Your task to perform on an android device: Add bose quietcomfort 35 to the cart on bestbuy Image 0: 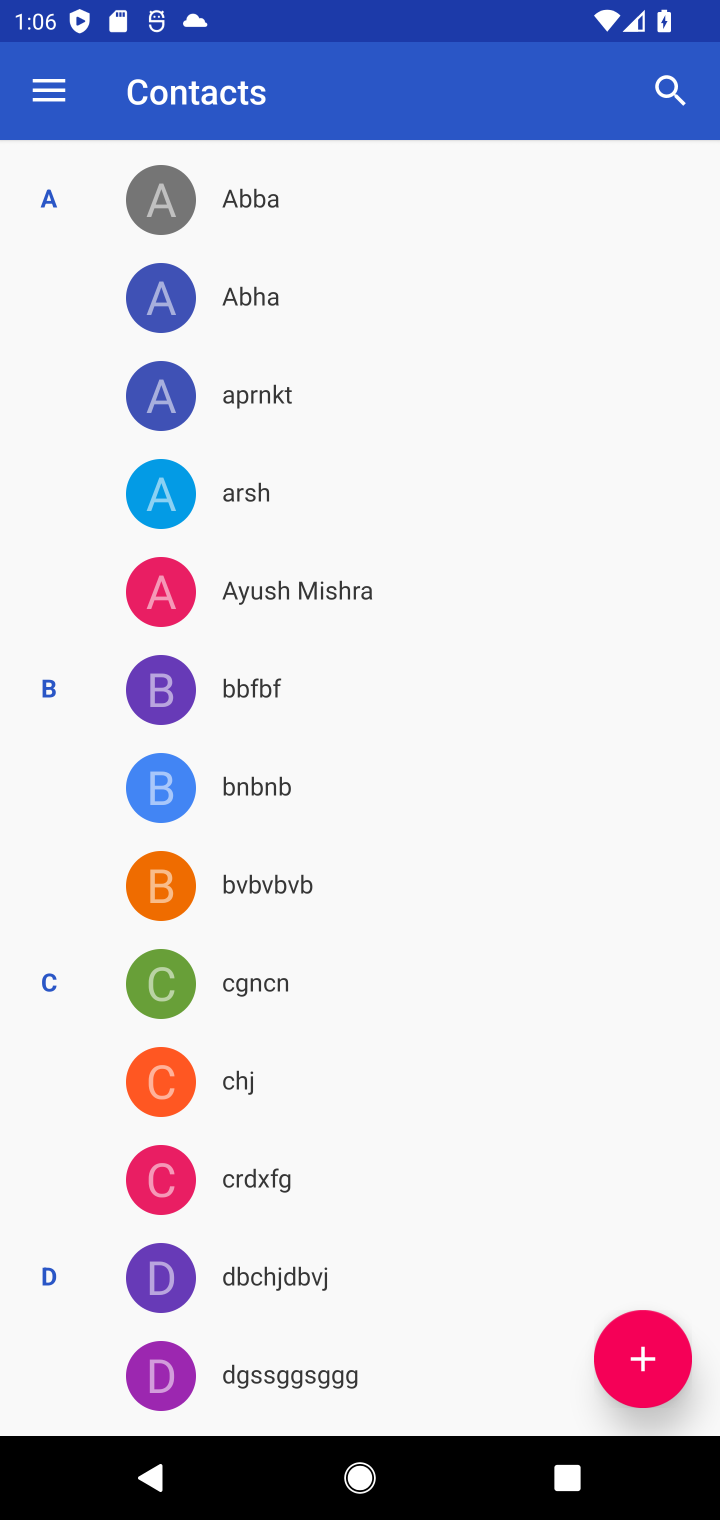
Step 0: press home button
Your task to perform on an android device: Add bose quietcomfort 35 to the cart on bestbuy Image 1: 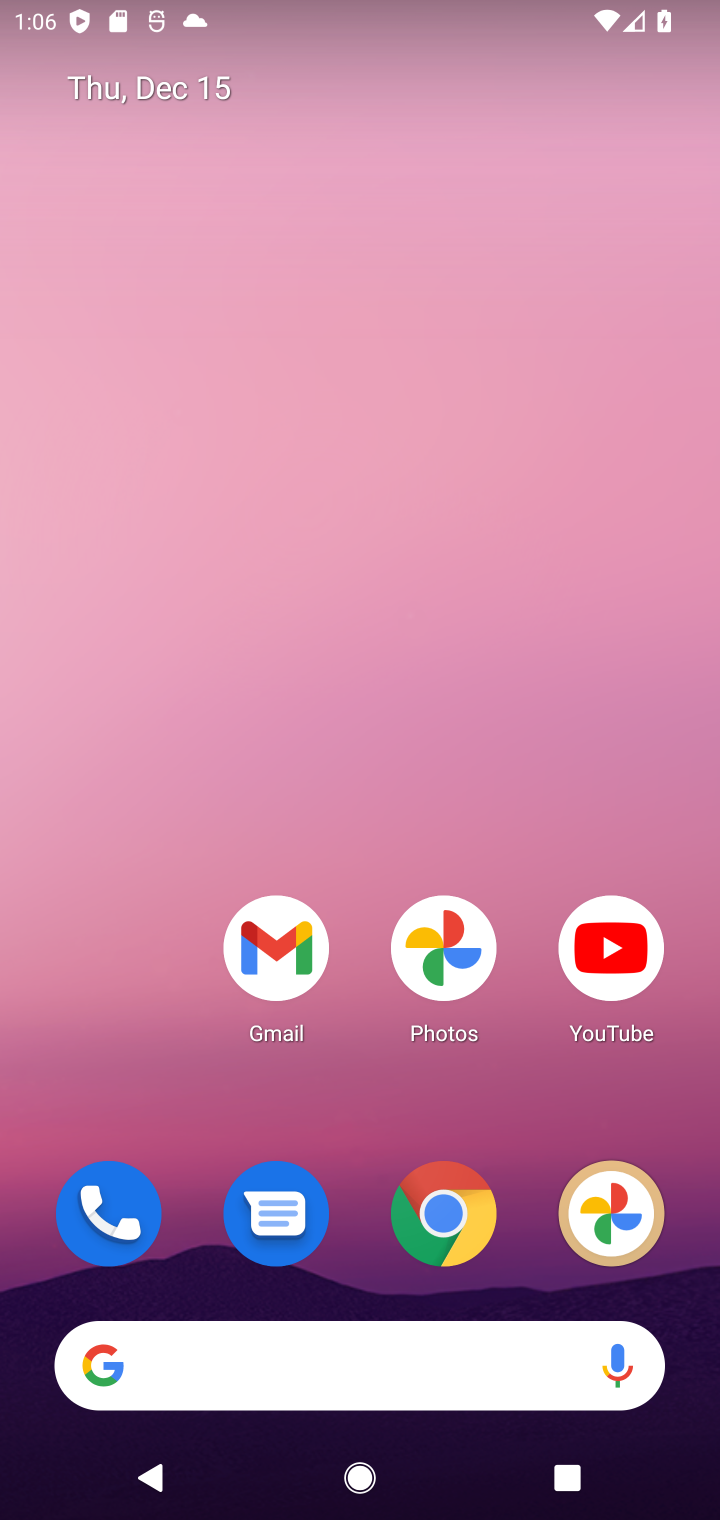
Step 1: click (450, 1229)
Your task to perform on an android device: Add bose quietcomfort 35 to the cart on bestbuy Image 2: 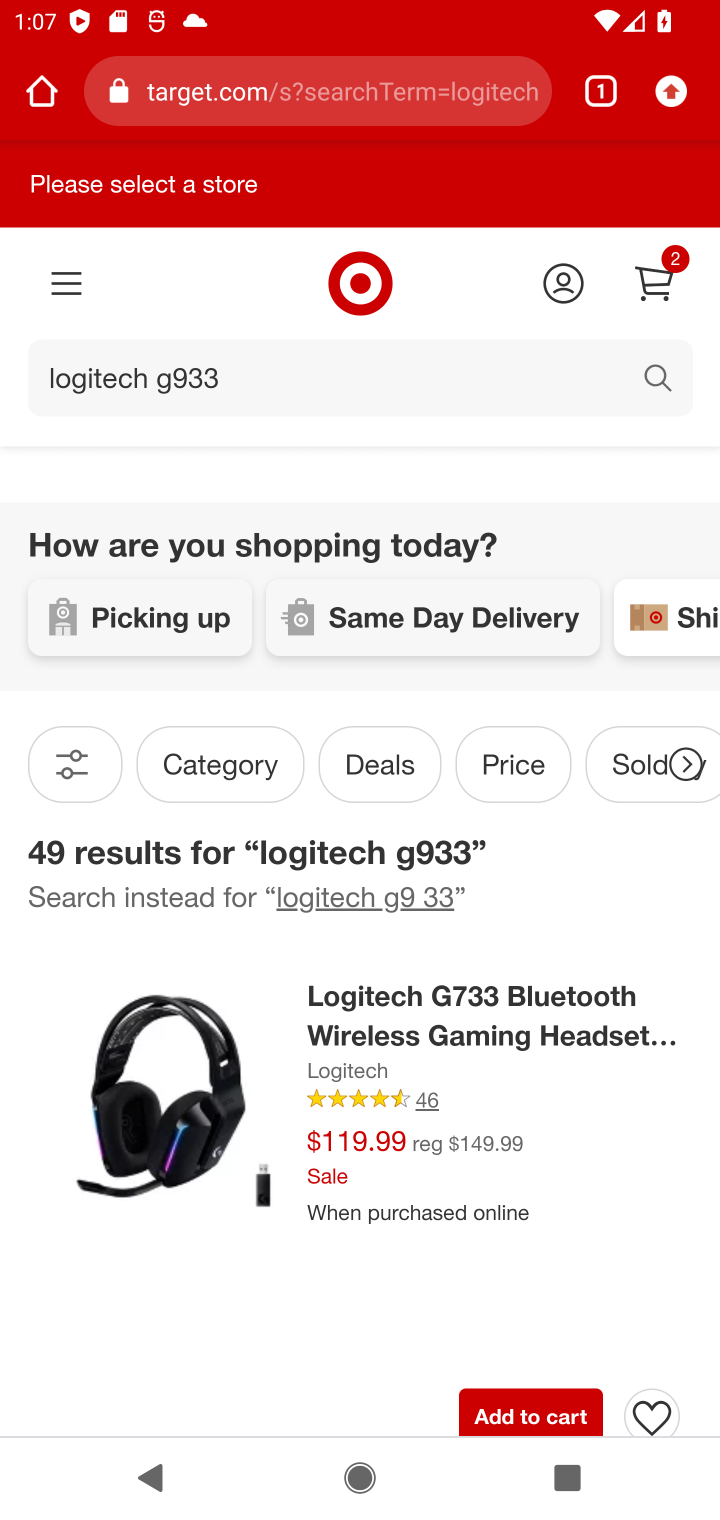
Step 2: click (297, 98)
Your task to perform on an android device: Add bose quietcomfort 35 to the cart on bestbuy Image 3: 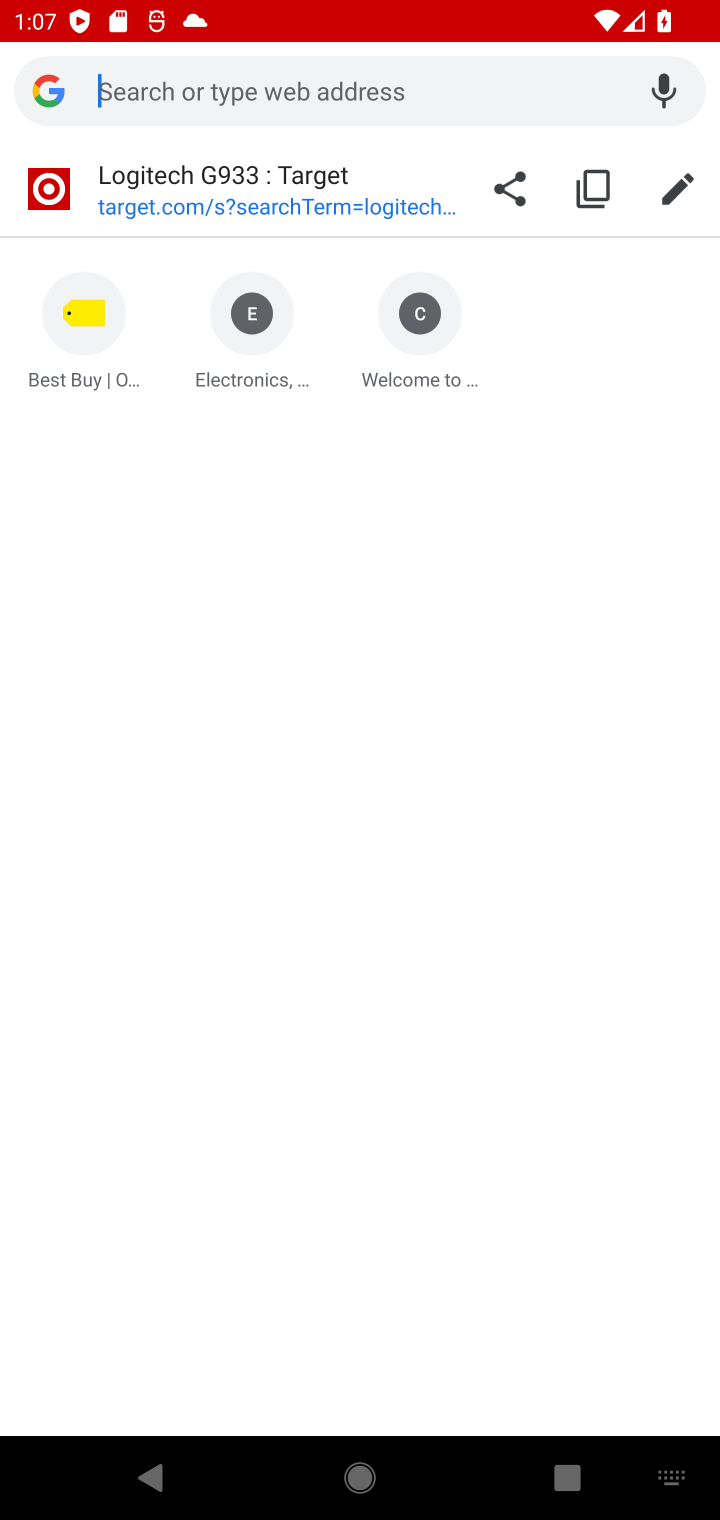
Step 3: type "bestbuy"
Your task to perform on an android device: Add bose quietcomfort 35 to the cart on bestbuy Image 4: 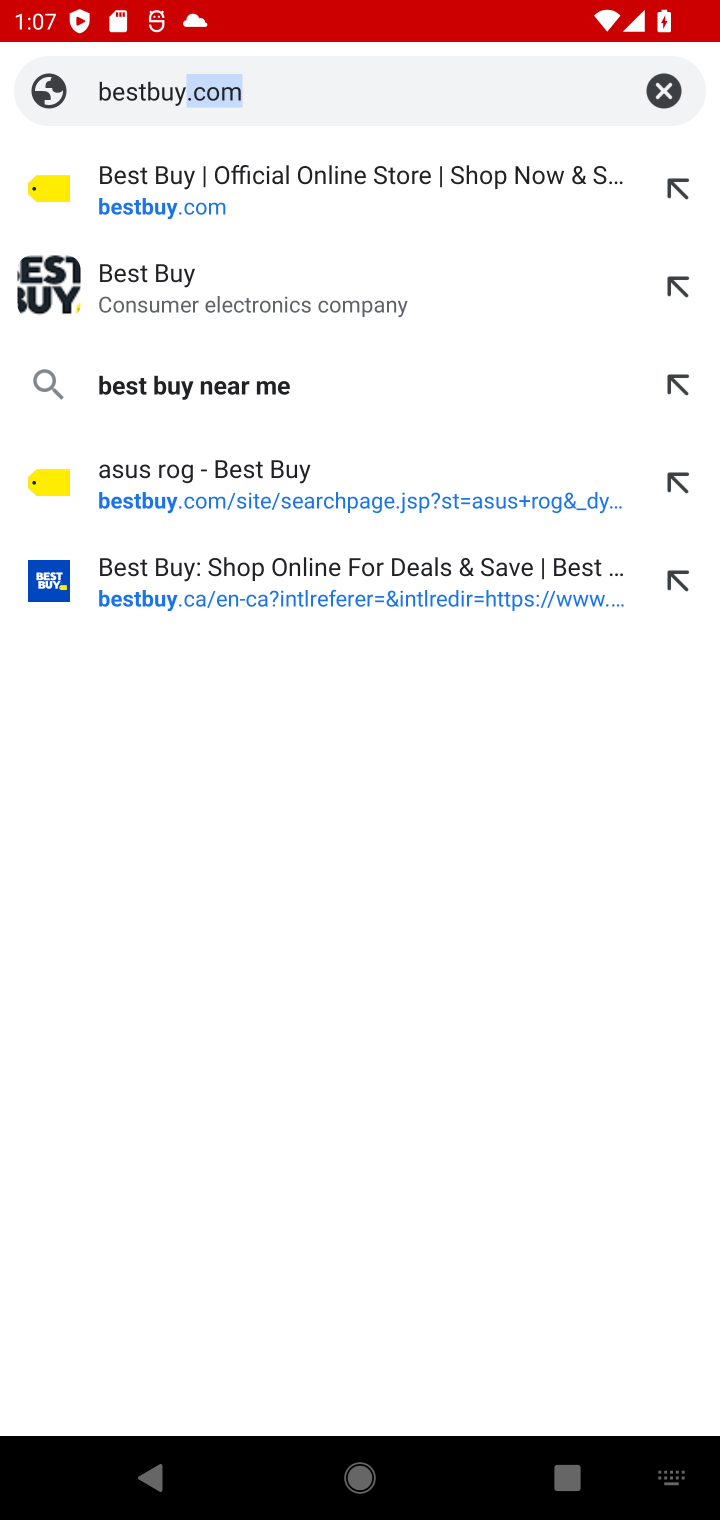
Step 4: click (170, 215)
Your task to perform on an android device: Add bose quietcomfort 35 to the cart on bestbuy Image 5: 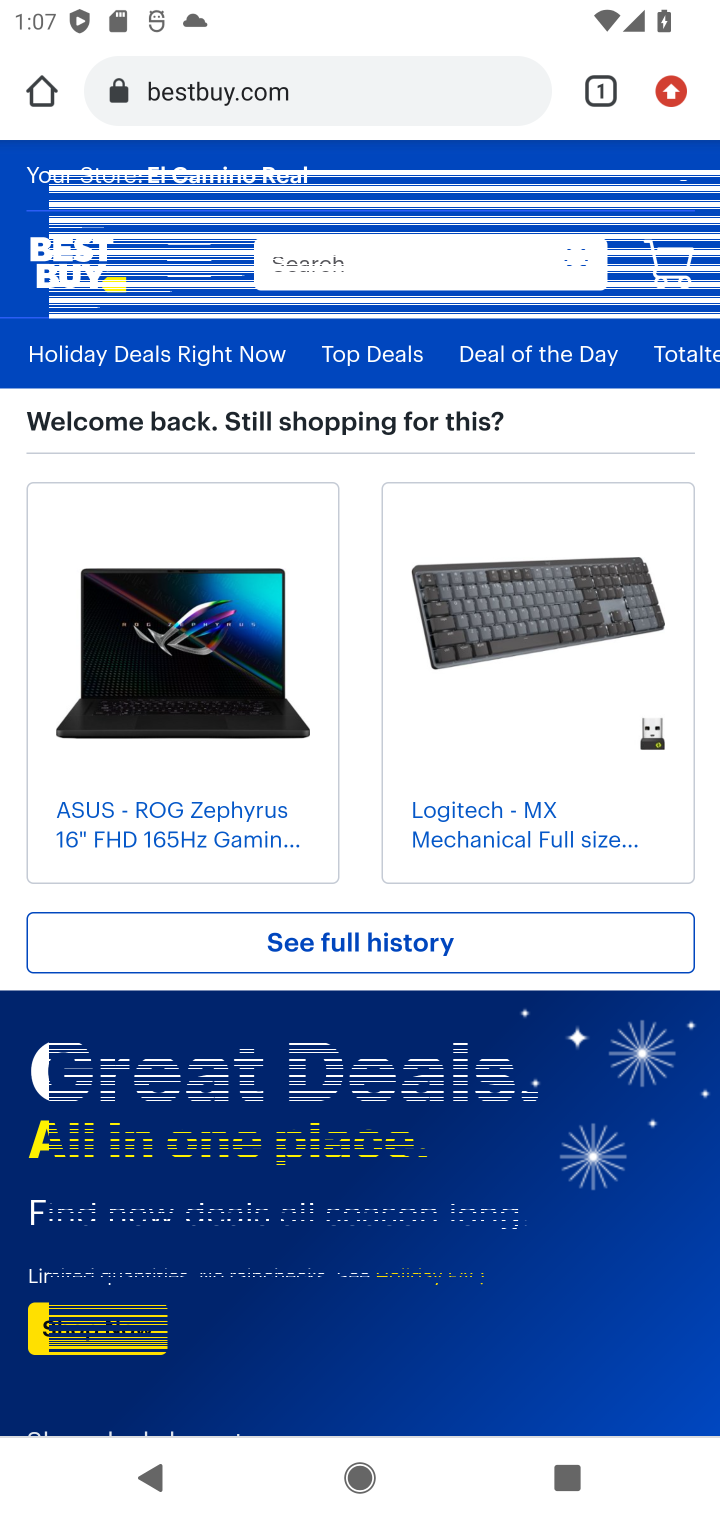
Step 5: click (351, 292)
Your task to perform on an android device: Add bose quietcomfort 35 to the cart on bestbuy Image 6: 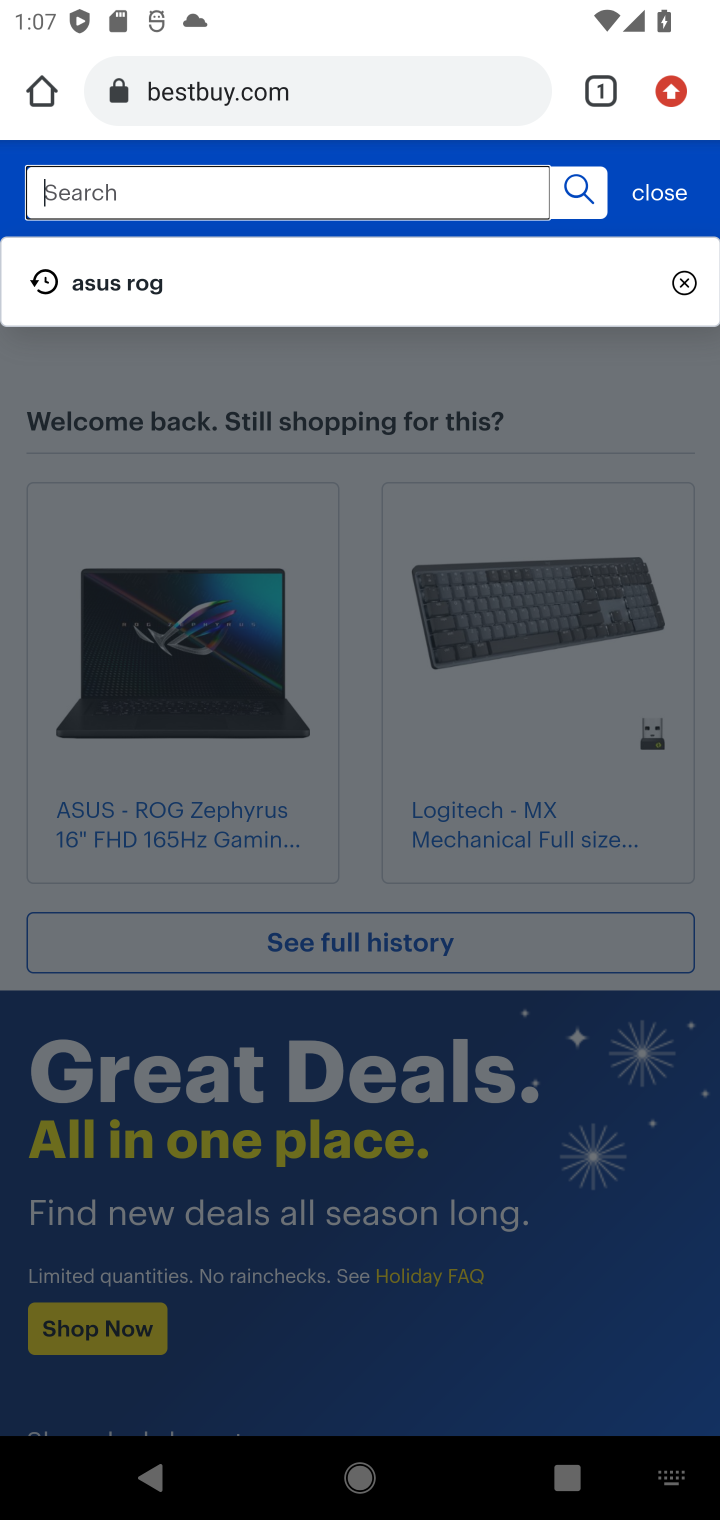
Step 6: type "bose quietcomfort"
Your task to perform on an android device: Add bose quietcomfort 35 to the cart on bestbuy Image 7: 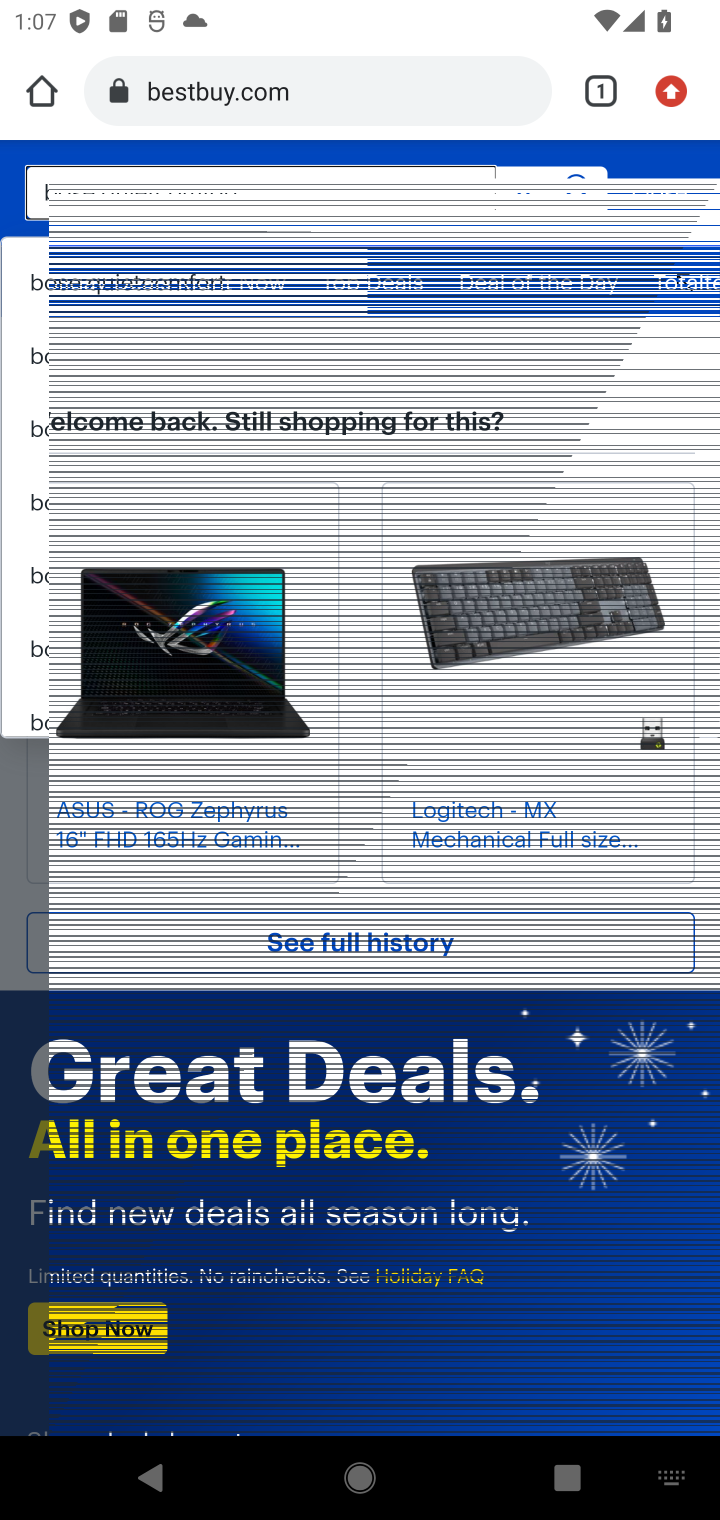
Step 7: click (582, 188)
Your task to perform on an android device: Add bose quietcomfort 35 to the cart on bestbuy Image 8: 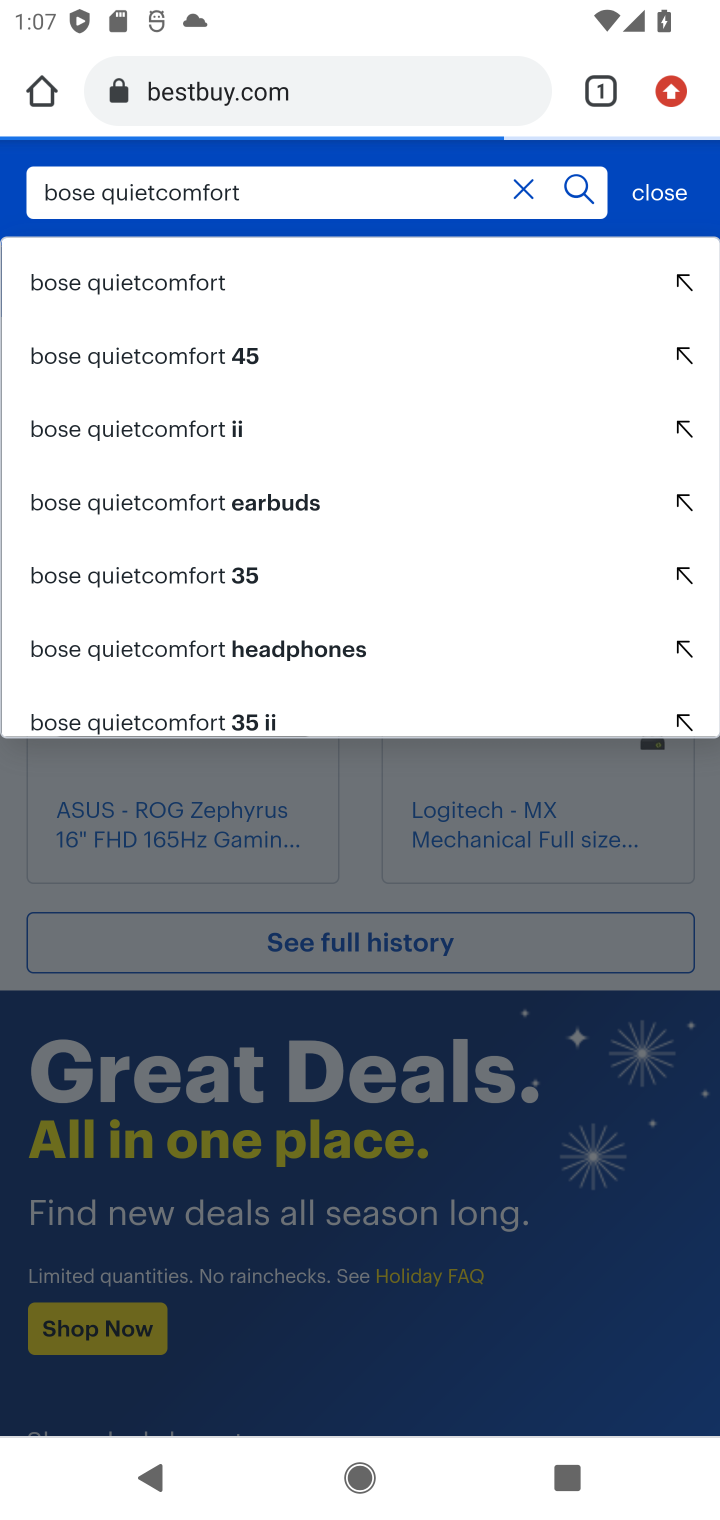
Step 8: click (196, 570)
Your task to perform on an android device: Add bose quietcomfort 35 to the cart on bestbuy Image 9: 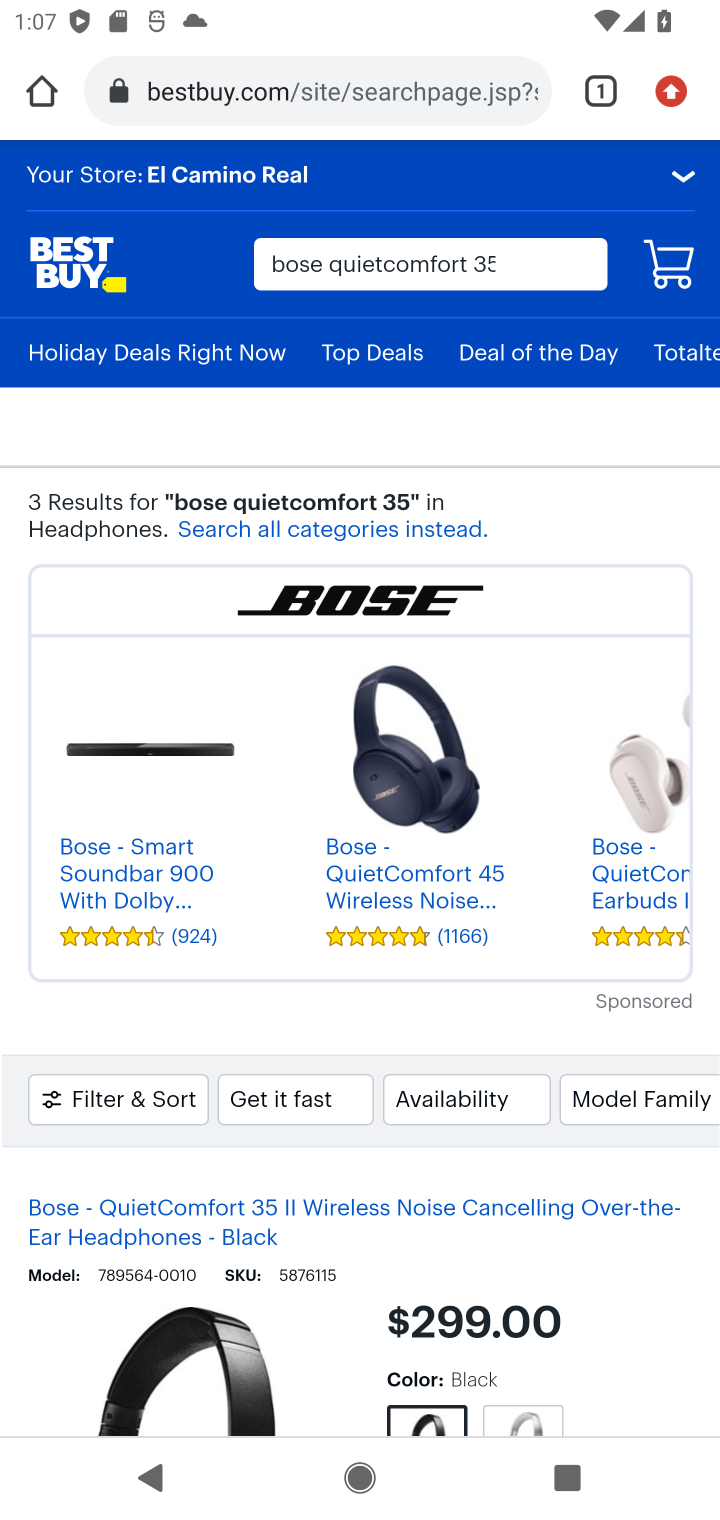
Step 9: click (248, 1373)
Your task to perform on an android device: Add bose quietcomfort 35 to the cart on bestbuy Image 10: 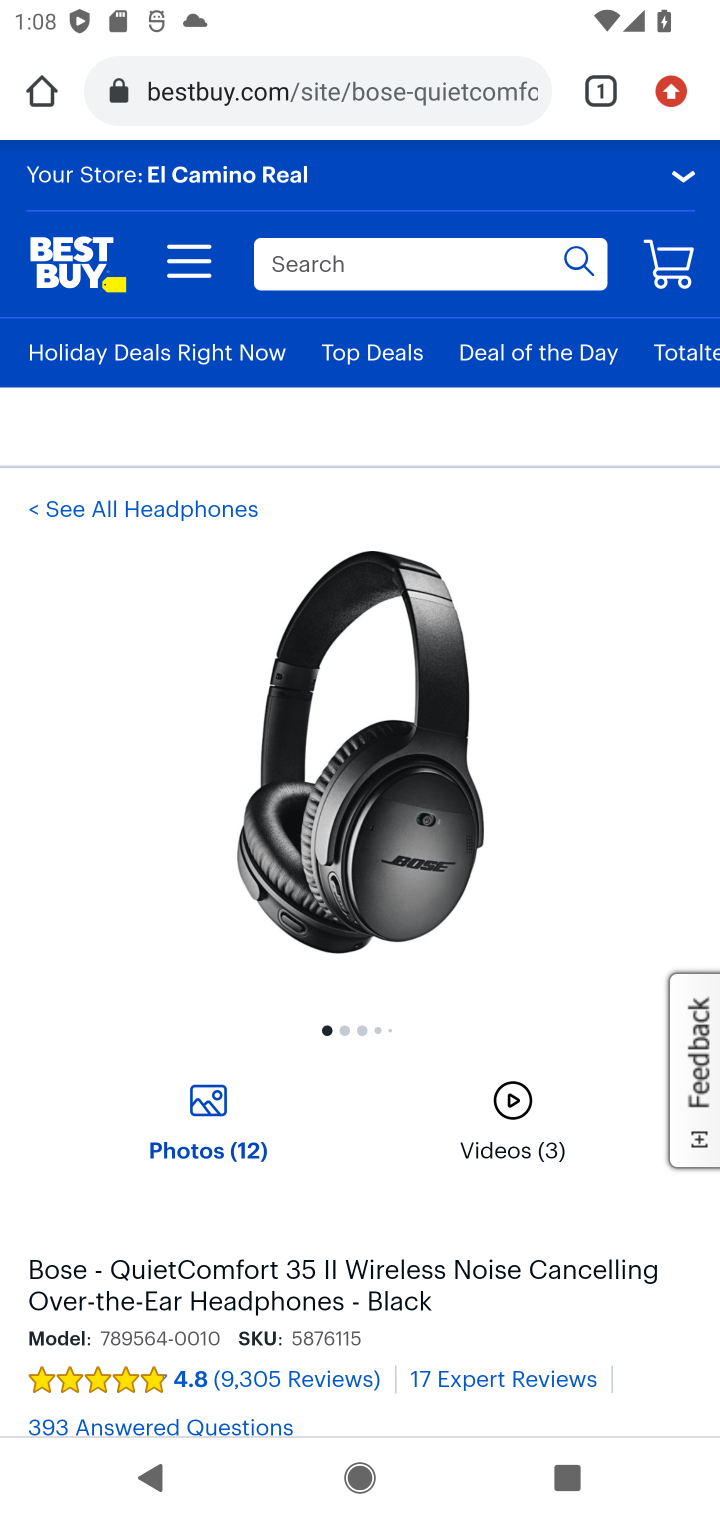
Step 10: task complete